Your task to perform on an android device: change keyboard looks Image 0: 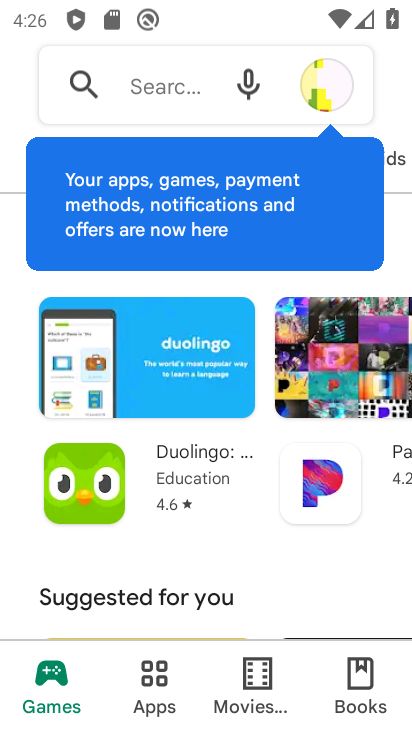
Step 0: press home button
Your task to perform on an android device: change keyboard looks Image 1: 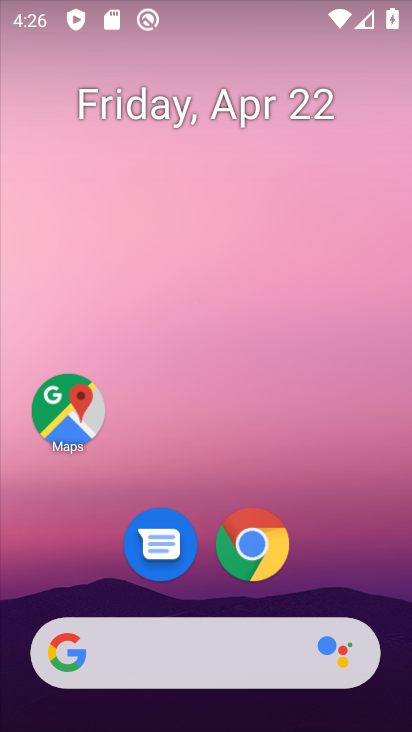
Step 1: drag from (222, 577) to (244, 245)
Your task to perform on an android device: change keyboard looks Image 2: 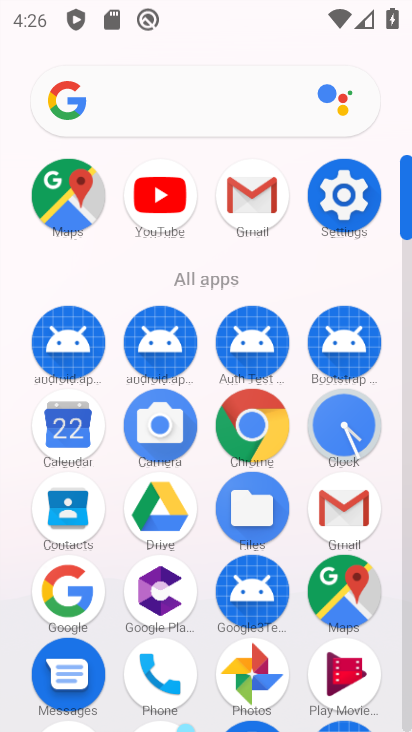
Step 2: click (342, 197)
Your task to perform on an android device: change keyboard looks Image 3: 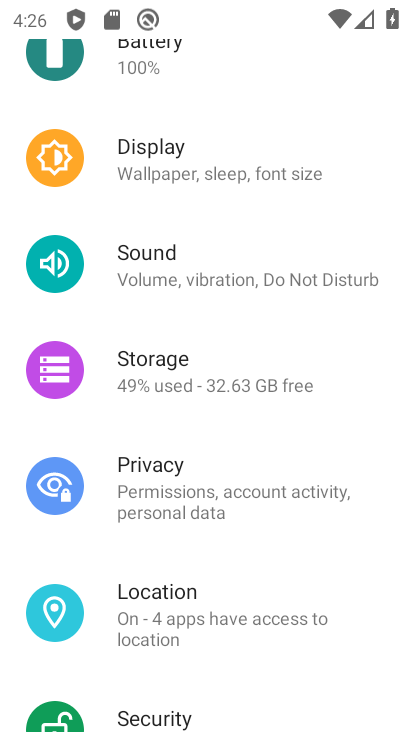
Step 3: drag from (234, 698) to (268, 361)
Your task to perform on an android device: change keyboard looks Image 4: 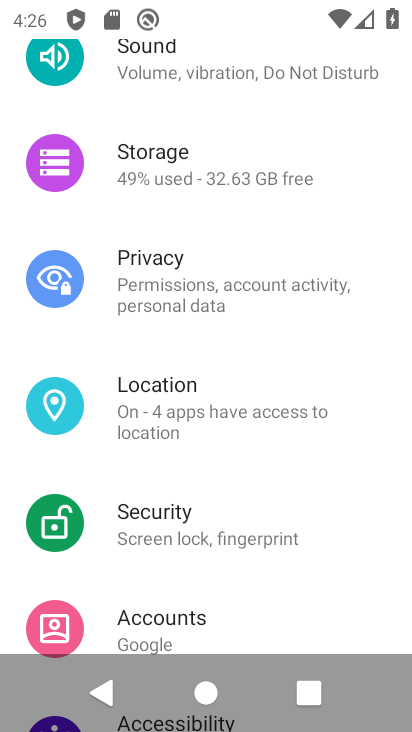
Step 4: drag from (204, 621) to (229, 286)
Your task to perform on an android device: change keyboard looks Image 5: 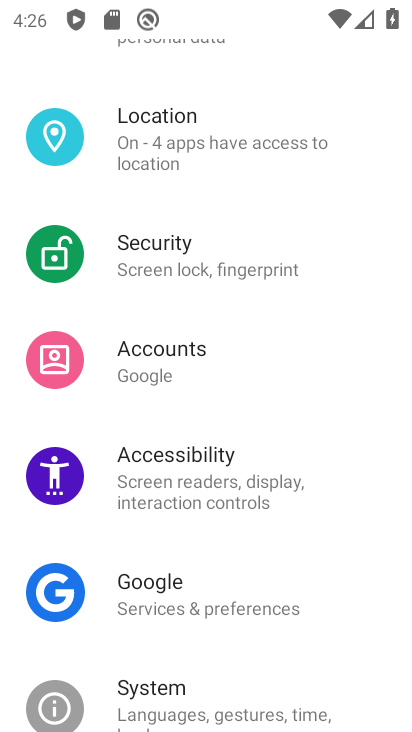
Step 5: drag from (174, 653) to (175, 274)
Your task to perform on an android device: change keyboard looks Image 6: 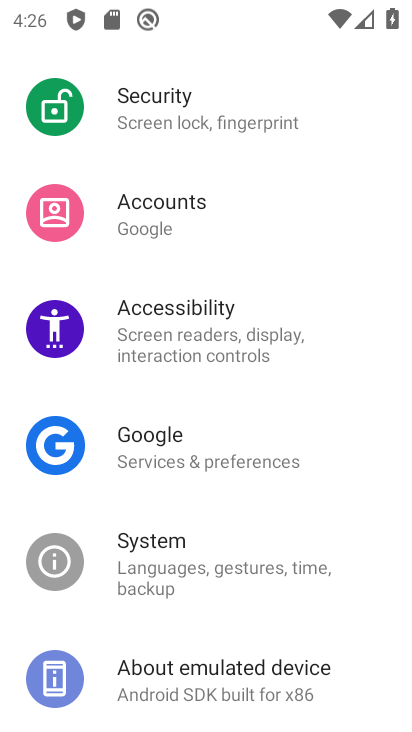
Step 6: click (185, 565)
Your task to perform on an android device: change keyboard looks Image 7: 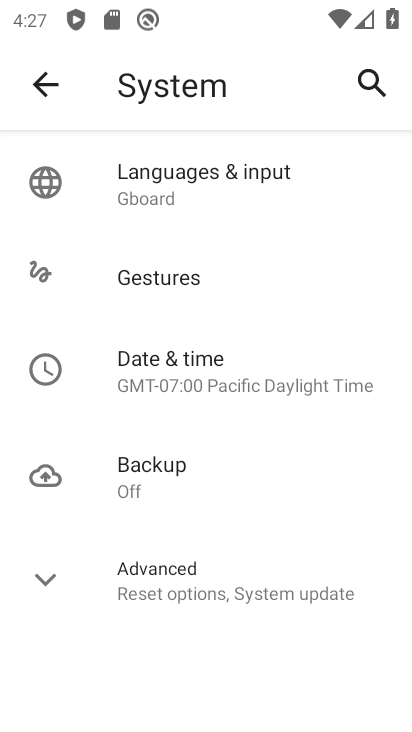
Step 7: click (188, 173)
Your task to perform on an android device: change keyboard looks Image 8: 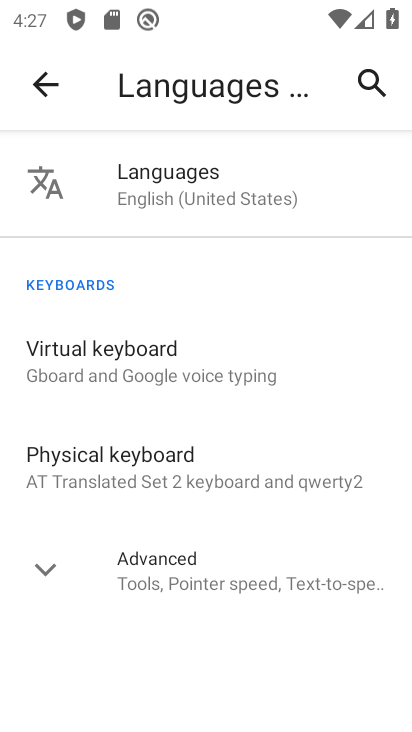
Step 8: click (133, 356)
Your task to perform on an android device: change keyboard looks Image 9: 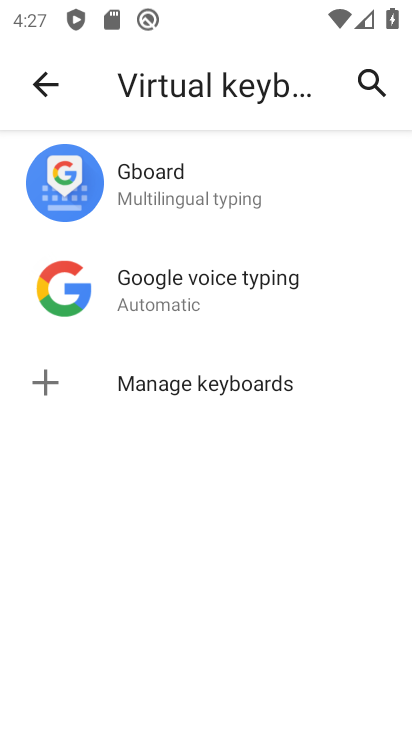
Step 9: click (150, 207)
Your task to perform on an android device: change keyboard looks Image 10: 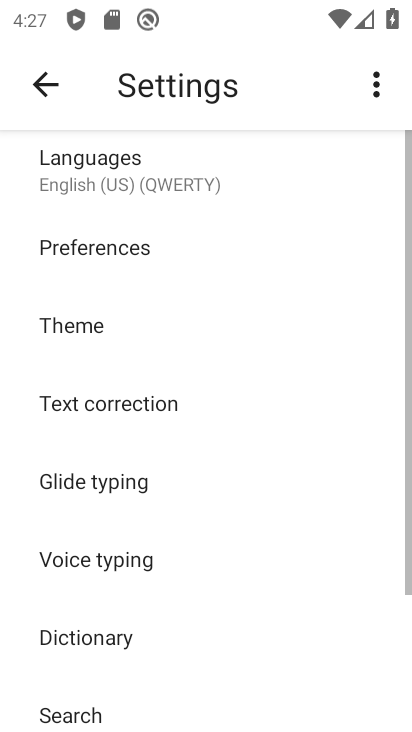
Step 10: click (93, 327)
Your task to perform on an android device: change keyboard looks Image 11: 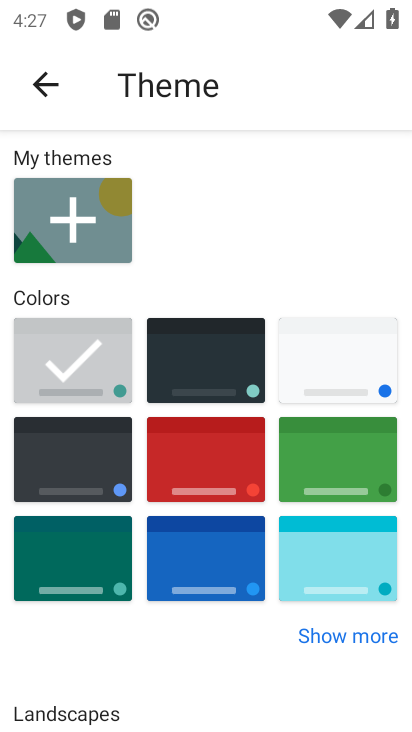
Step 11: click (205, 375)
Your task to perform on an android device: change keyboard looks Image 12: 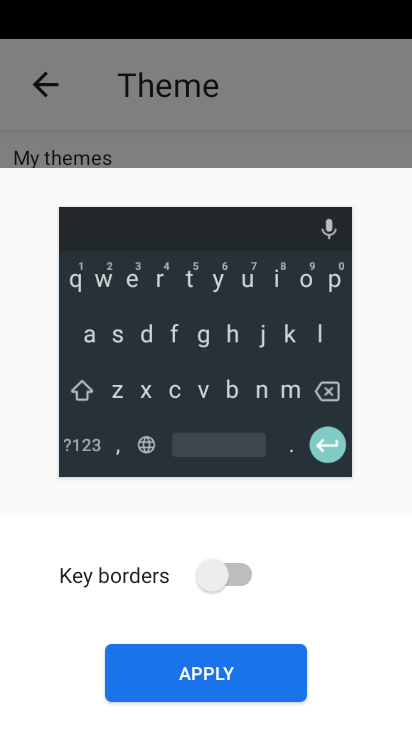
Step 12: click (208, 667)
Your task to perform on an android device: change keyboard looks Image 13: 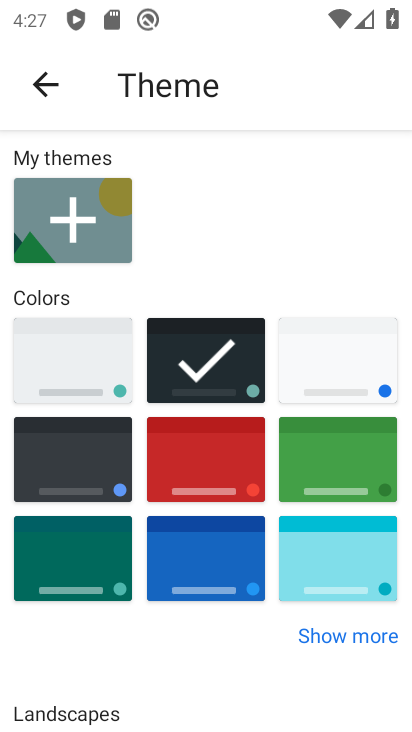
Step 13: task complete